Your task to perform on an android device: install app "Cash App" Image 0: 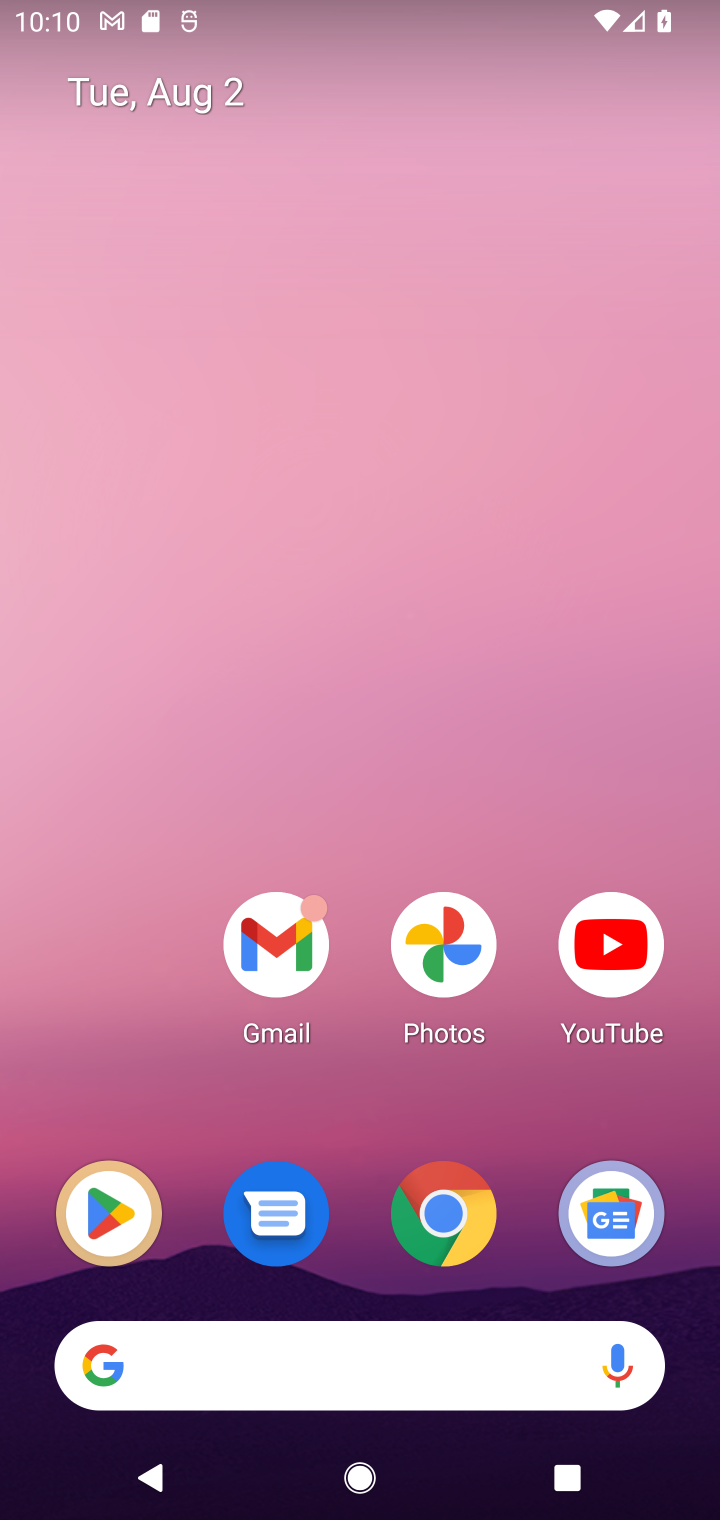
Step 0: drag from (350, 1233) to (372, 158)
Your task to perform on an android device: install app "Cash App" Image 1: 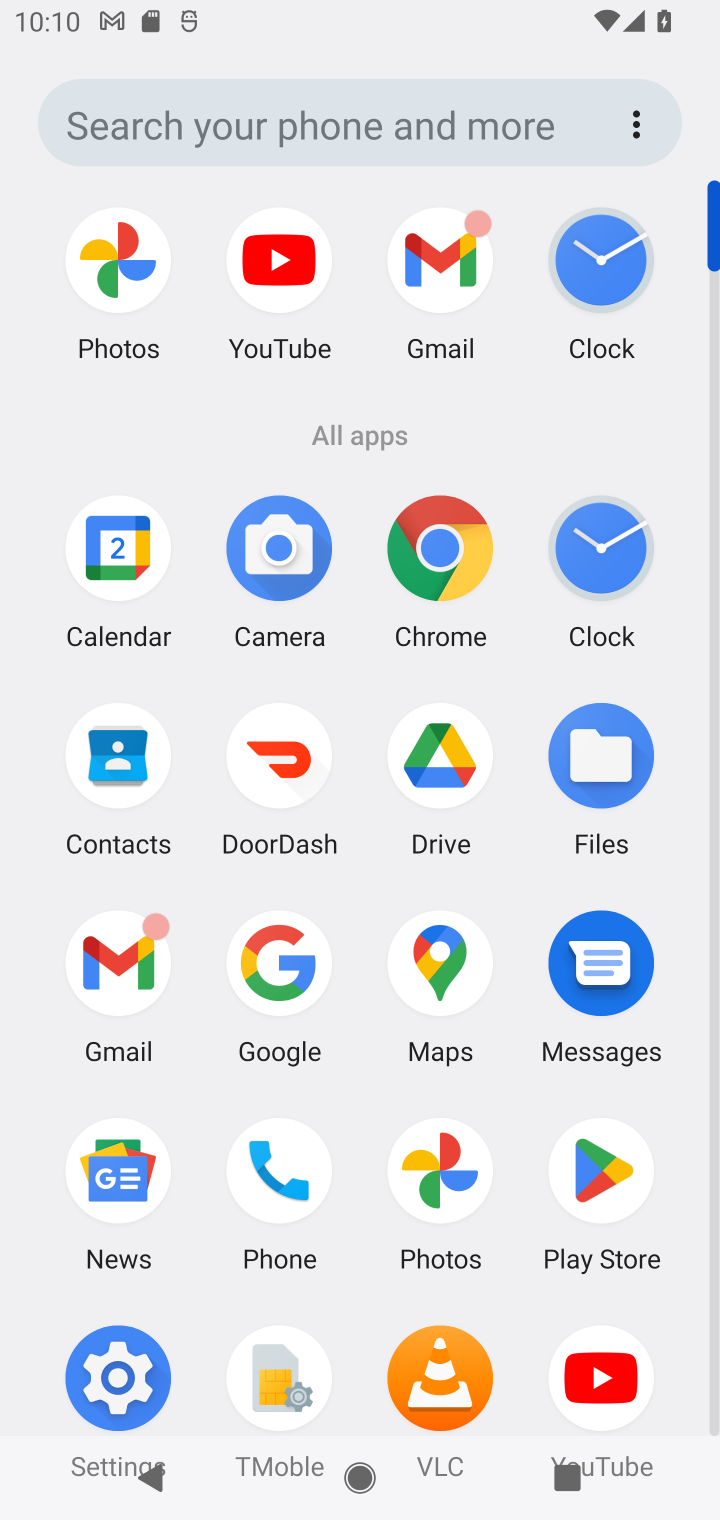
Step 1: click (600, 1156)
Your task to perform on an android device: install app "Cash App" Image 2: 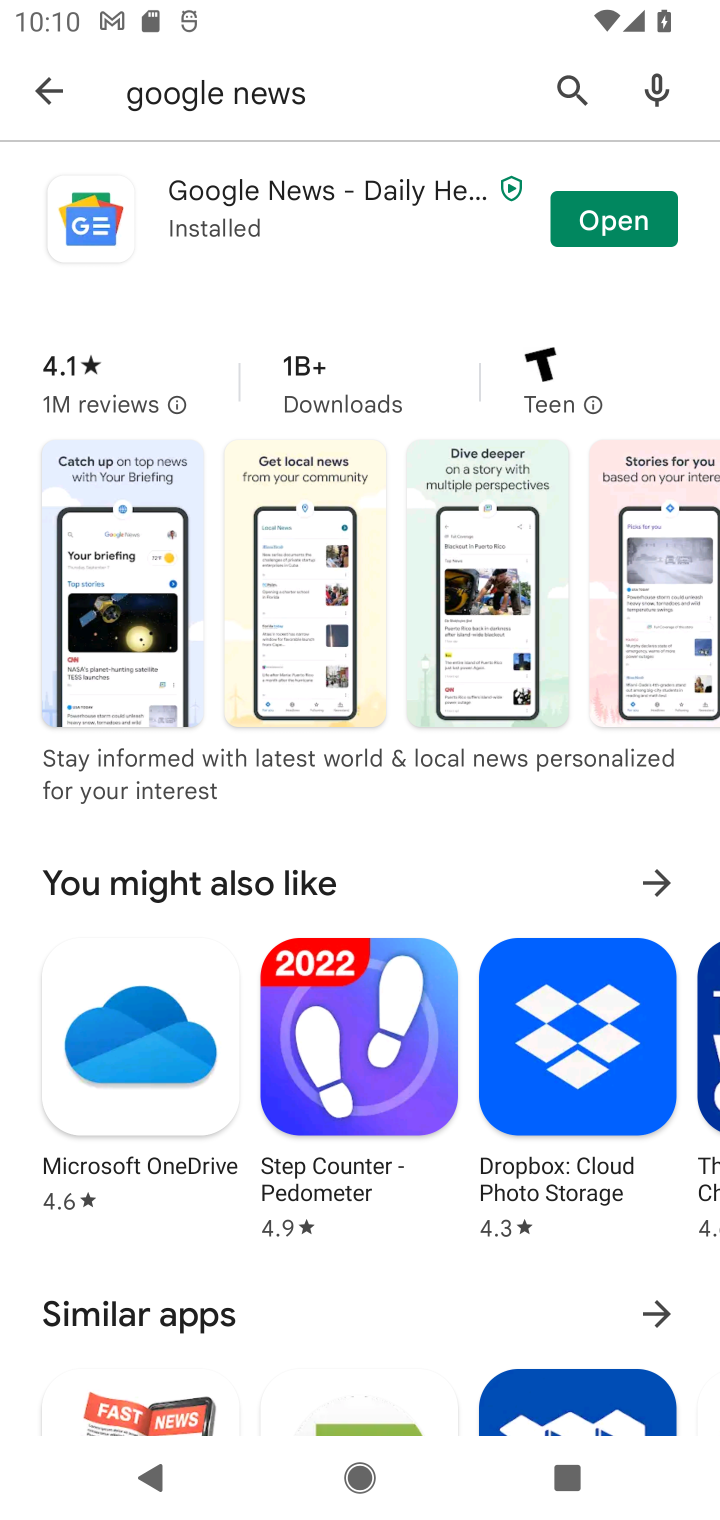
Step 2: click (50, 102)
Your task to perform on an android device: install app "Cash App" Image 3: 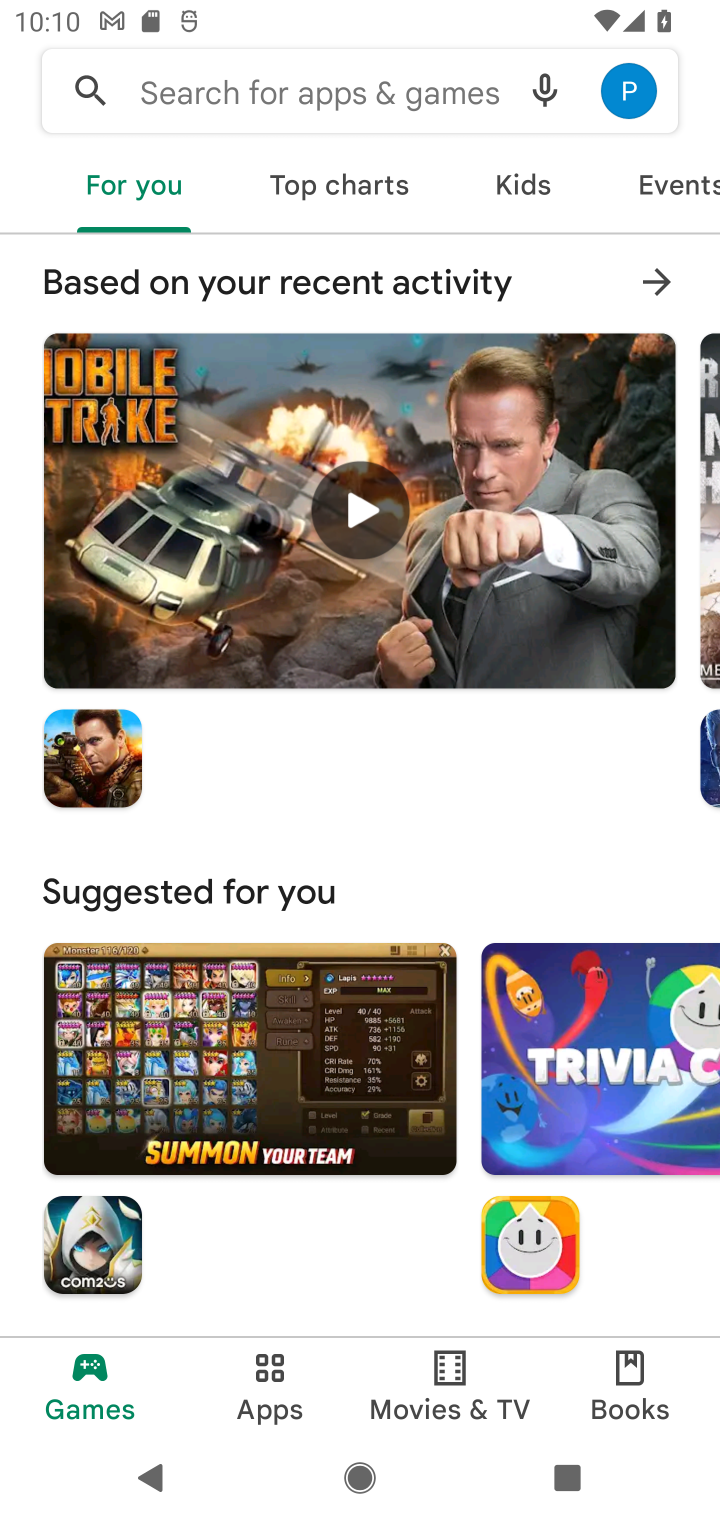
Step 3: click (345, 108)
Your task to perform on an android device: install app "Cash App" Image 4: 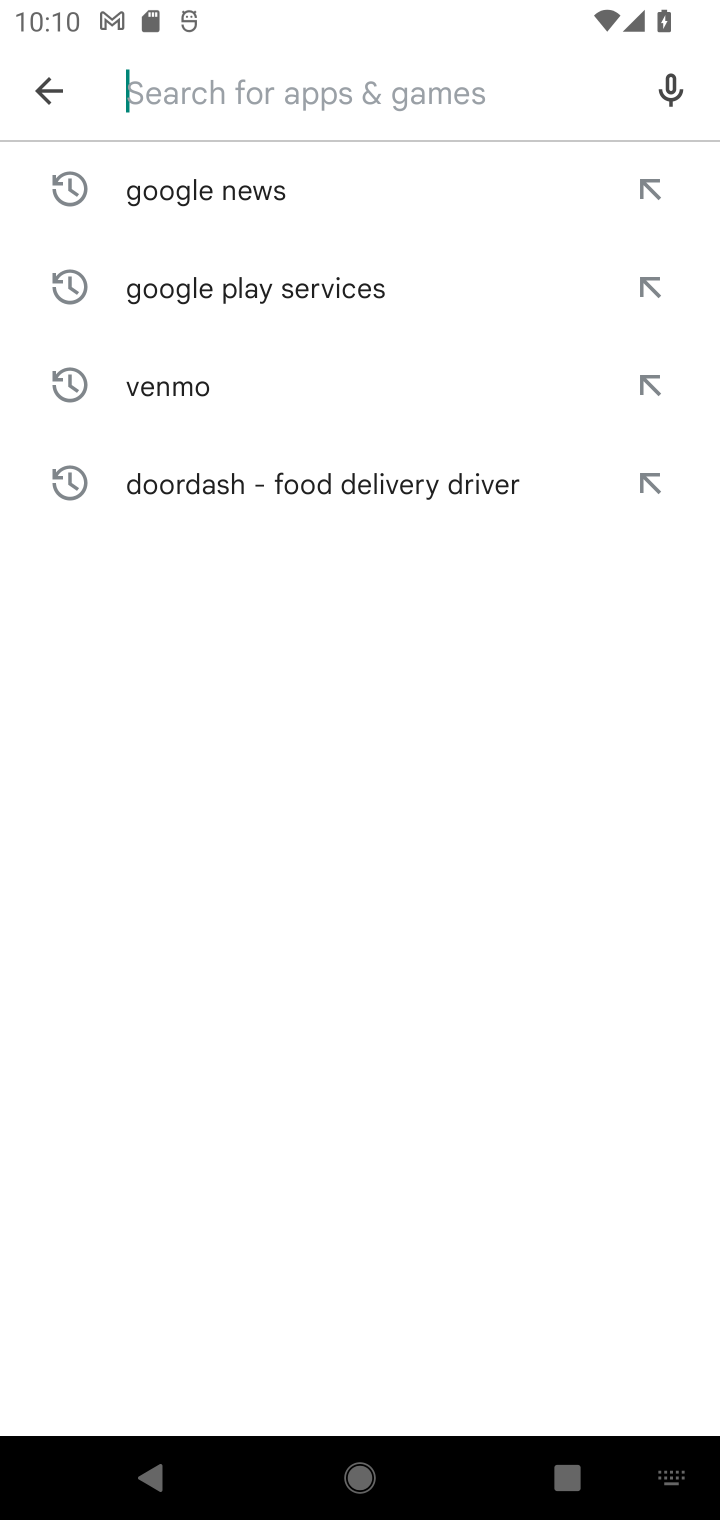
Step 4: type "Cash App"
Your task to perform on an android device: install app "Cash App" Image 5: 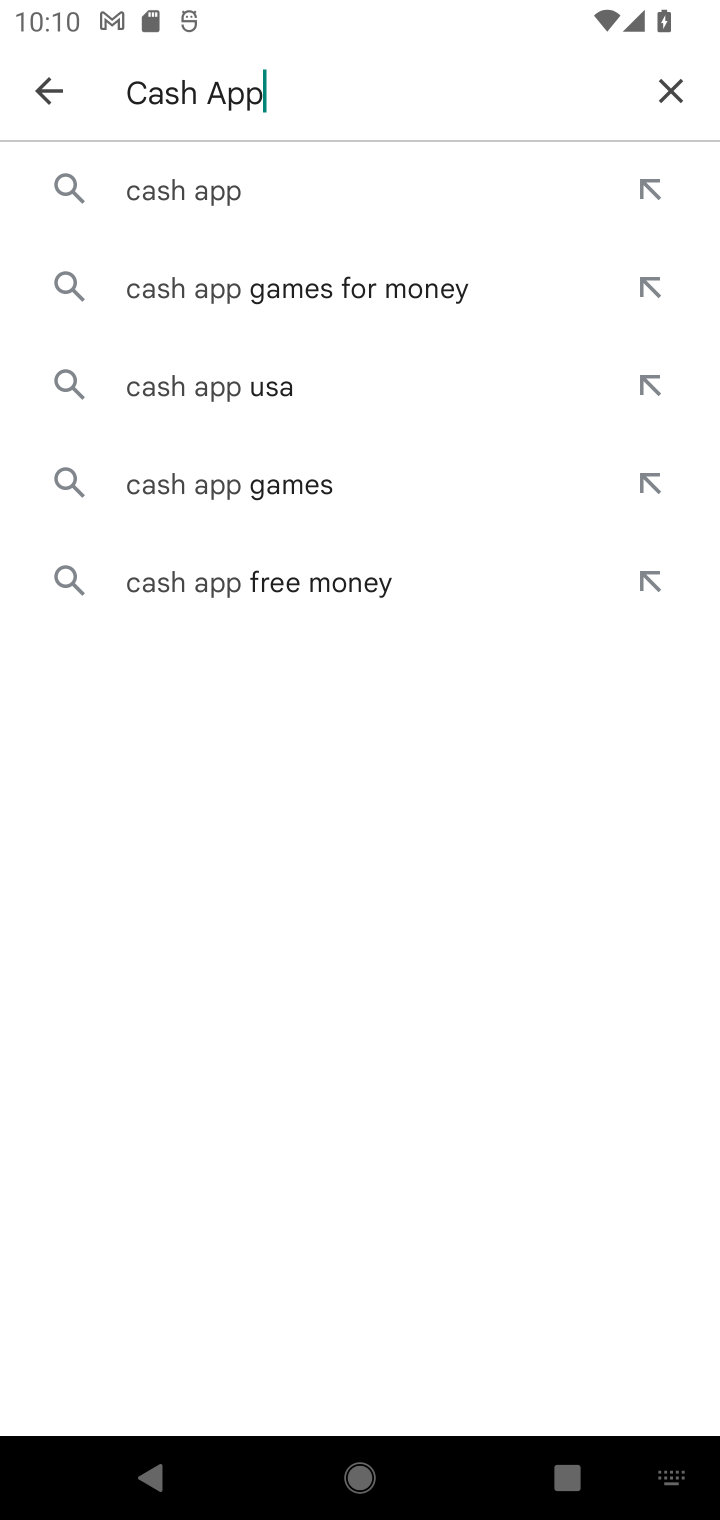
Step 5: click (164, 179)
Your task to perform on an android device: install app "Cash App" Image 6: 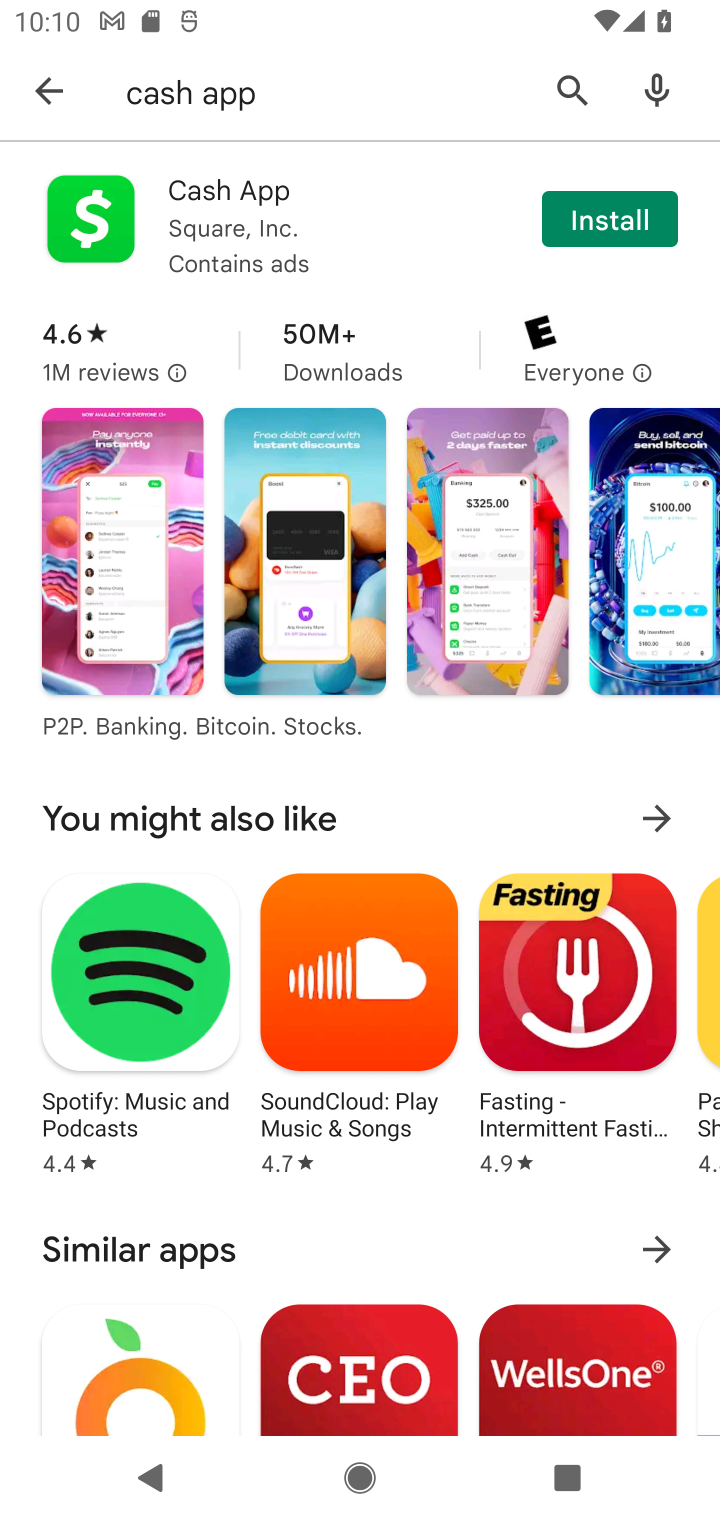
Step 6: click (605, 217)
Your task to perform on an android device: install app "Cash App" Image 7: 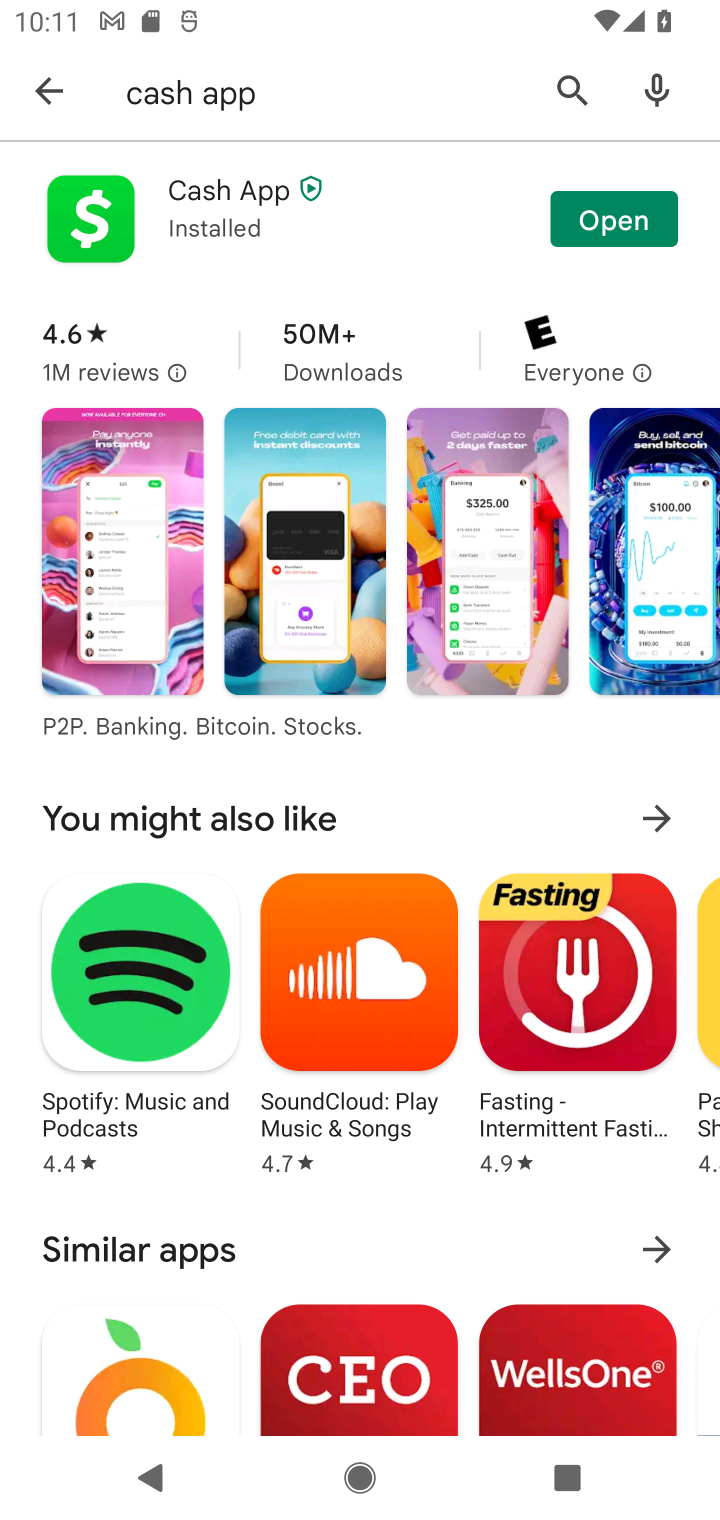
Step 7: click (599, 235)
Your task to perform on an android device: install app "Cash App" Image 8: 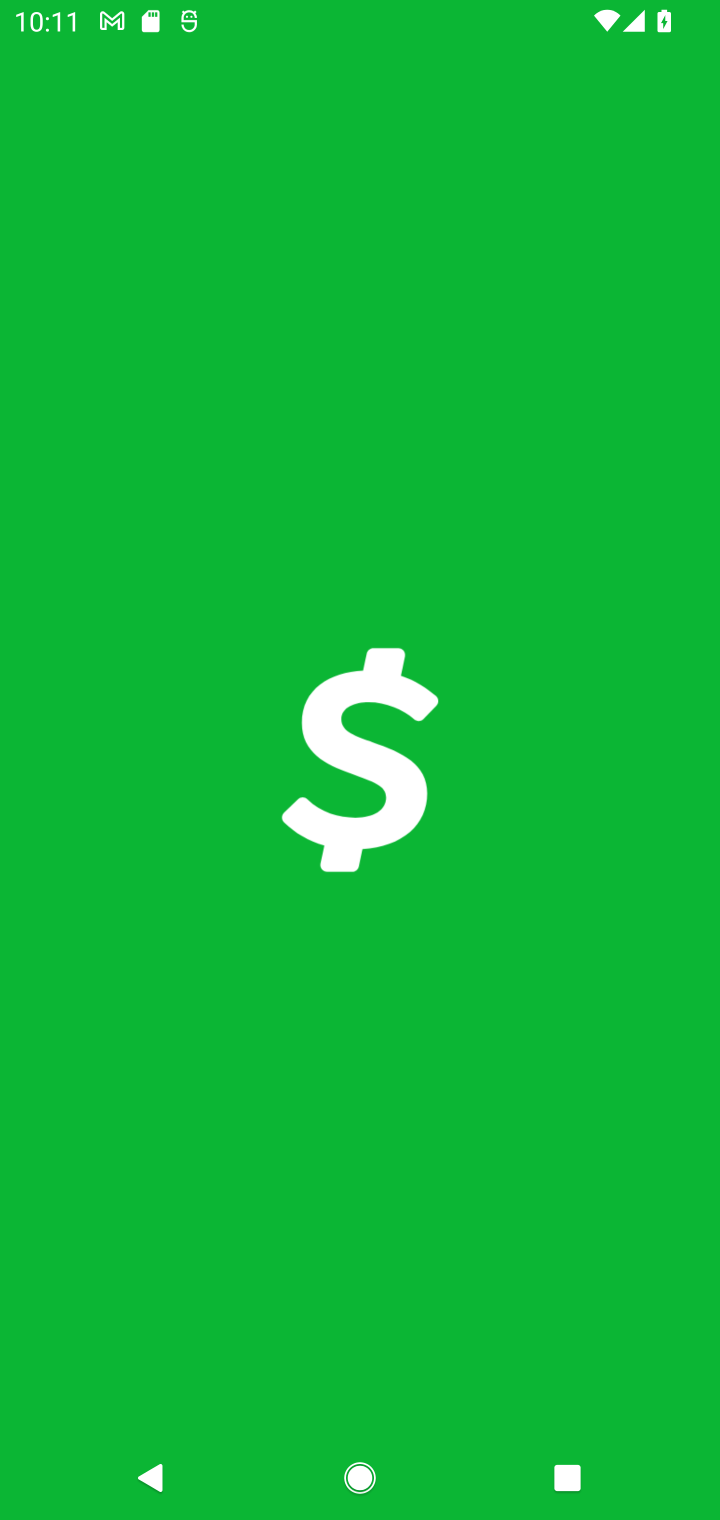
Step 8: task complete